Your task to perform on an android device: Open the phone app and click the voicemail tab. Image 0: 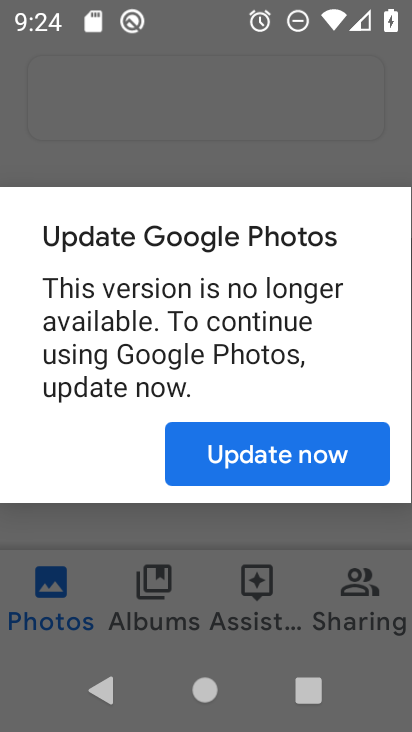
Step 0: press home button
Your task to perform on an android device: Open the phone app and click the voicemail tab. Image 1: 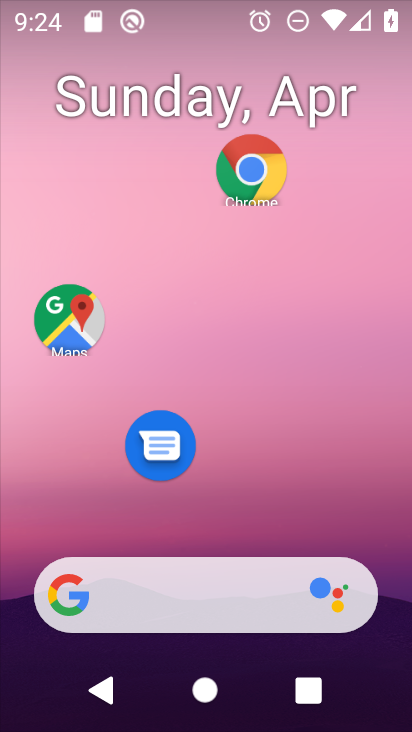
Step 1: drag from (249, 519) to (257, 79)
Your task to perform on an android device: Open the phone app and click the voicemail tab. Image 2: 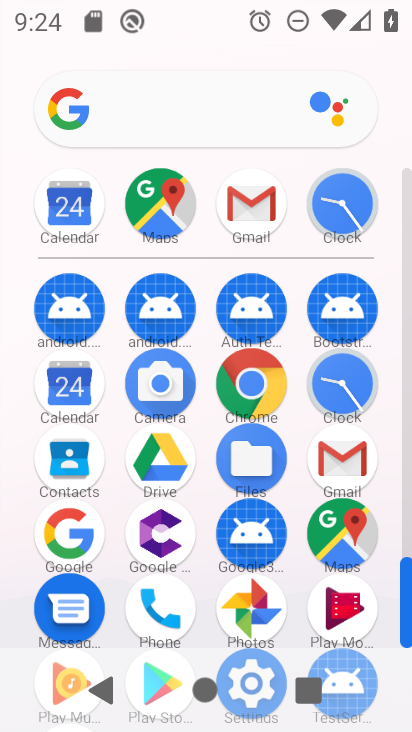
Step 2: drag from (204, 572) to (215, 241)
Your task to perform on an android device: Open the phone app and click the voicemail tab. Image 3: 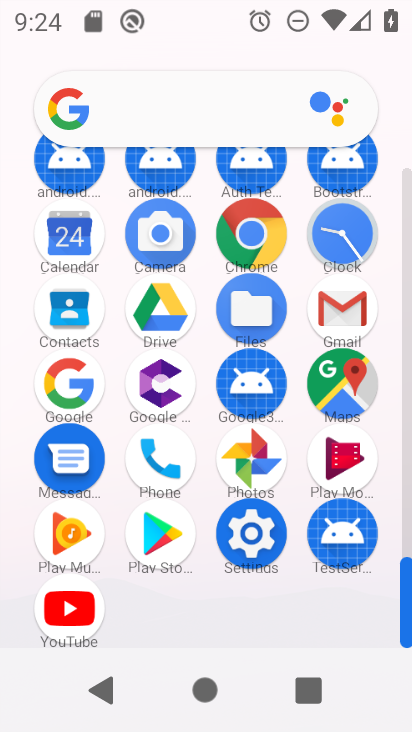
Step 3: drag from (205, 364) to (190, 619)
Your task to perform on an android device: Open the phone app and click the voicemail tab. Image 4: 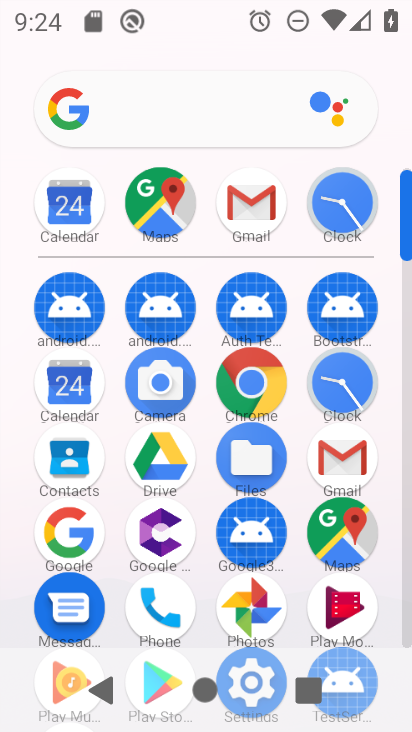
Step 4: click (158, 605)
Your task to perform on an android device: Open the phone app and click the voicemail tab. Image 5: 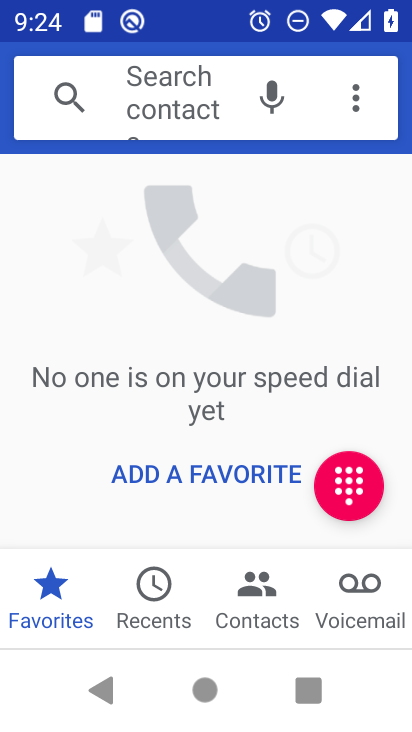
Step 5: click (344, 615)
Your task to perform on an android device: Open the phone app and click the voicemail tab. Image 6: 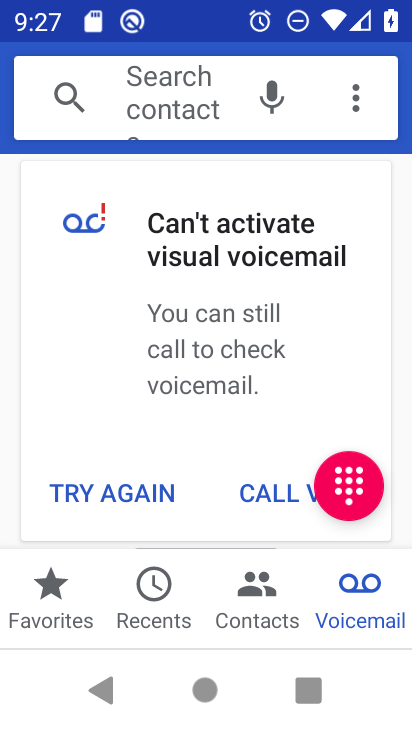
Step 6: task complete